Your task to perform on an android device: Go to battery settings Image 0: 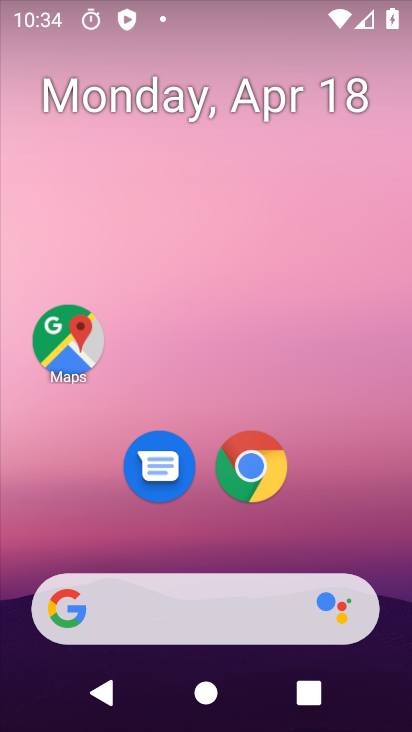
Step 0: drag from (236, 572) to (250, 335)
Your task to perform on an android device: Go to battery settings Image 1: 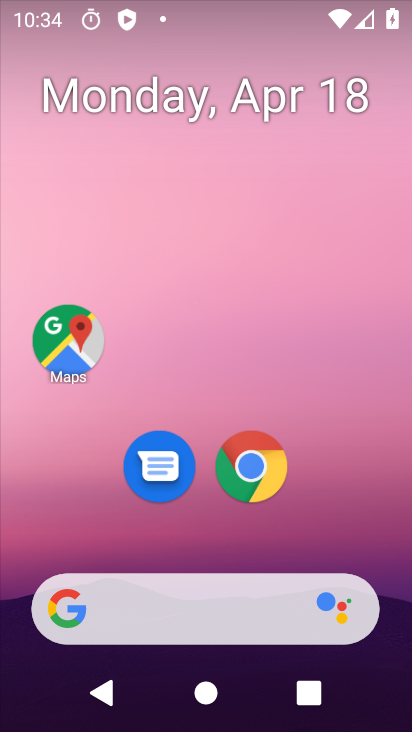
Step 1: click (219, 355)
Your task to perform on an android device: Go to battery settings Image 2: 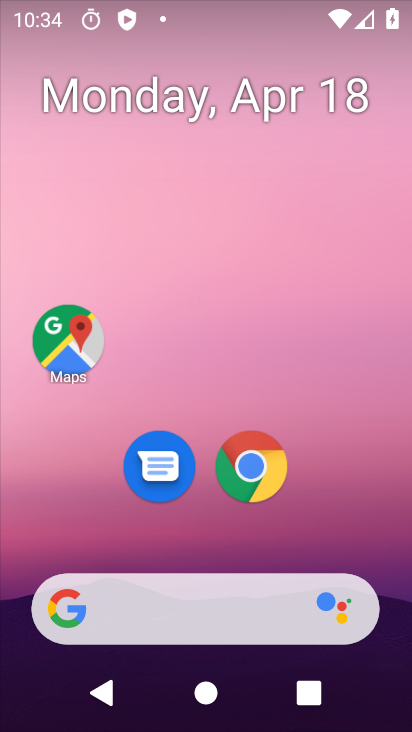
Step 2: drag from (219, 537) to (208, 404)
Your task to perform on an android device: Go to battery settings Image 3: 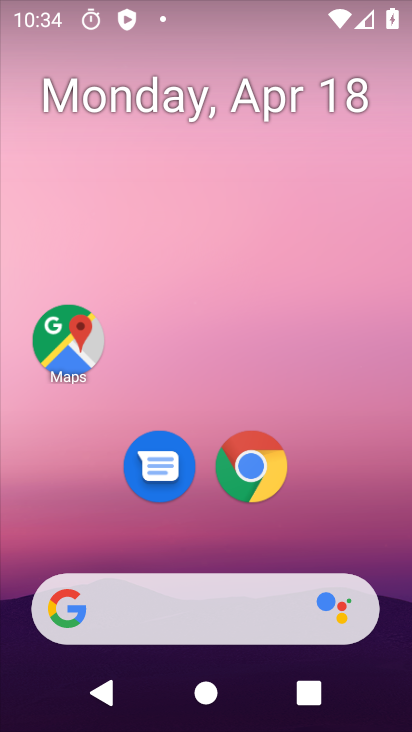
Step 3: drag from (260, 584) to (269, 273)
Your task to perform on an android device: Go to battery settings Image 4: 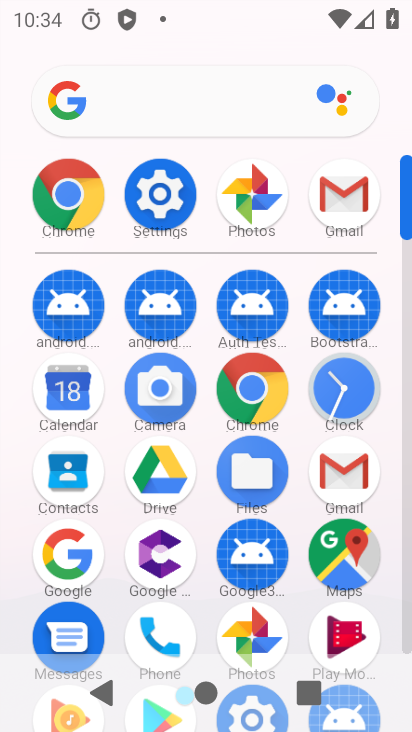
Step 4: click (159, 227)
Your task to perform on an android device: Go to battery settings Image 5: 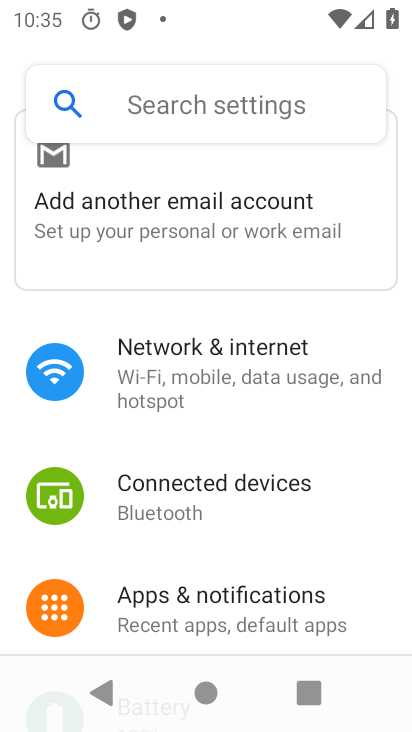
Step 5: drag from (227, 550) to (259, 226)
Your task to perform on an android device: Go to battery settings Image 6: 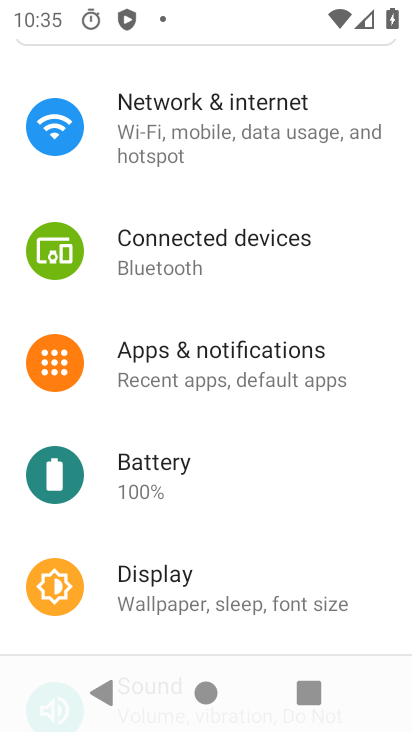
Step 6: click (249, 489)
Your task to perform on an android device: Go to battery settings Image 7: 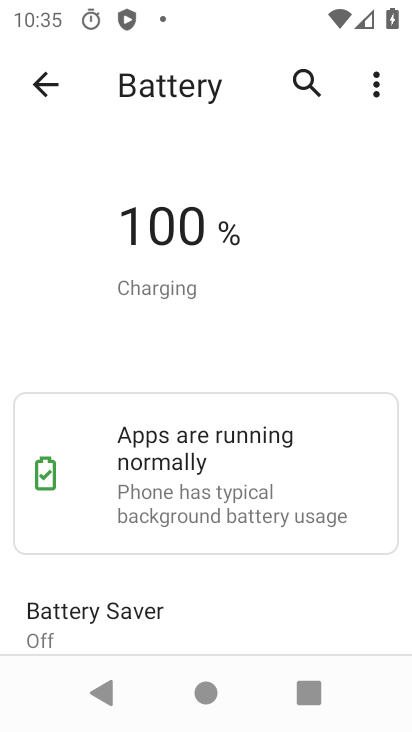
Step 7: task complete